Your task to perform on an android device: see creations saved in the google photos Image 0: 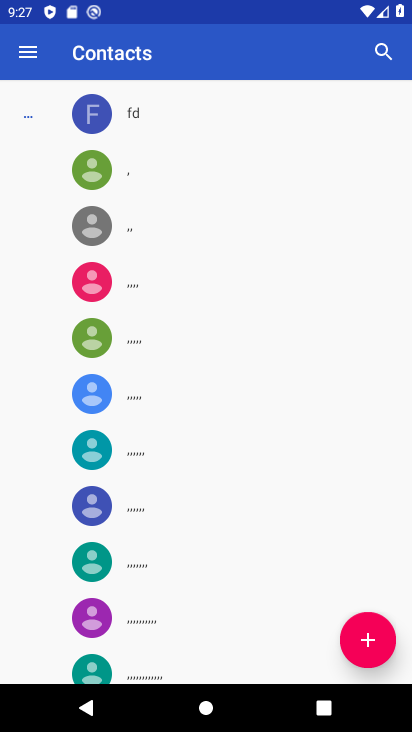
Step 0: press home button
Your task to perform on an android device: see creations saved in the google photos Image 1: 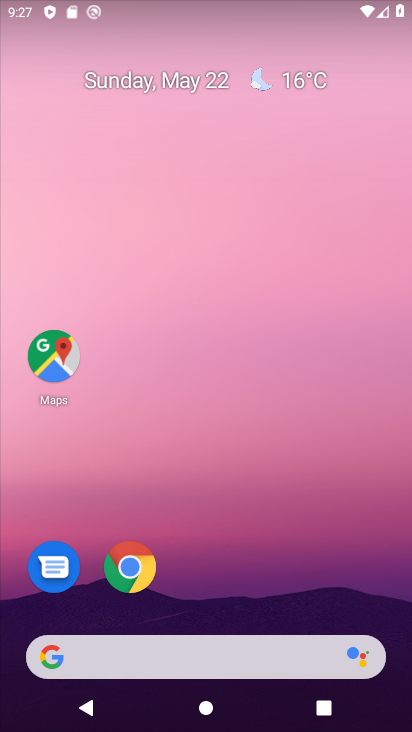
Step 1: drag from (225, 622) to (370, 57)
Your task to perform on an android device: see creations saved in the google photos Image 2: 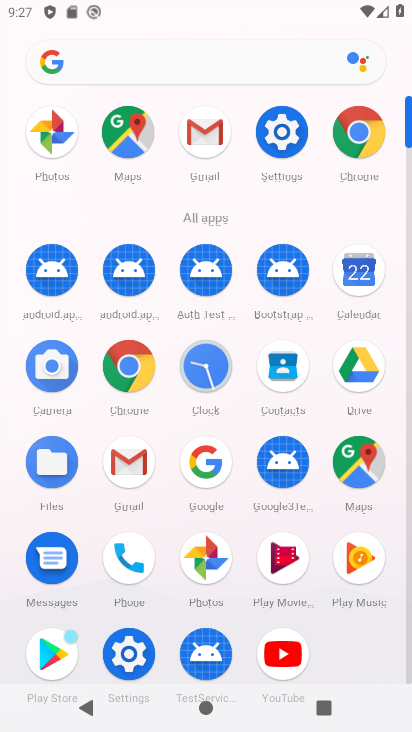
Step 2: click (204, 573)
Your task to perform on an android device: see creations saved in the google photos Image 3: 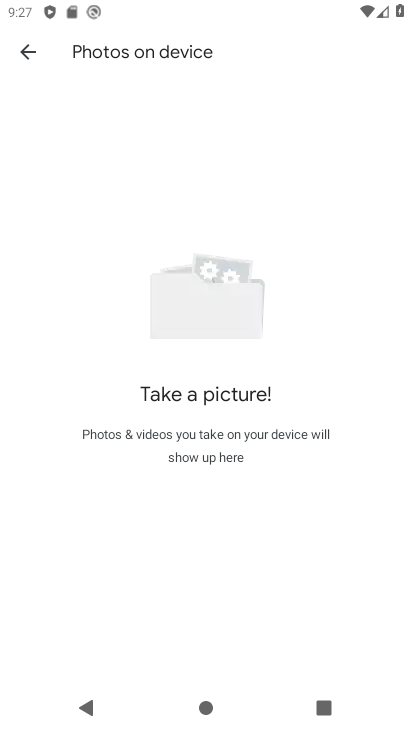
Step 3: click (31, 39)
Your task to perform on an android device: see creations saved in the google photos Image 4: 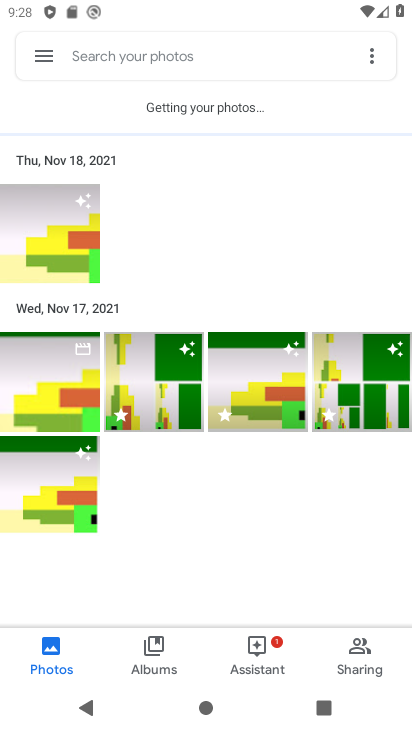
Step 4: click (227, 73)
Your task to perform on an android device: see creations saved in the google photos Image 5: 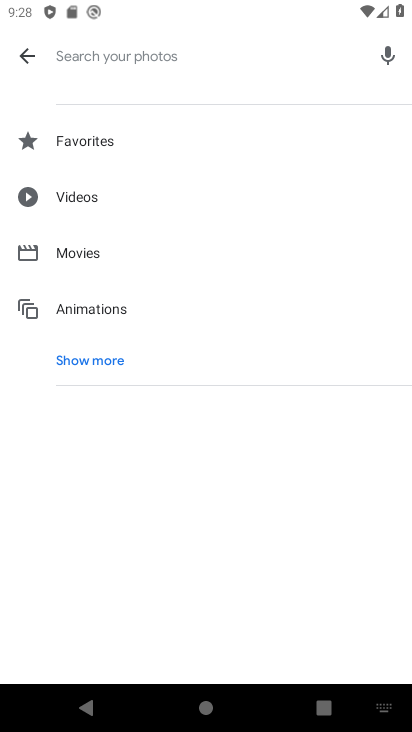
Step 5: click (84, 352)
Your task to perform on an android device: see creations saved in the google photos Image 6: 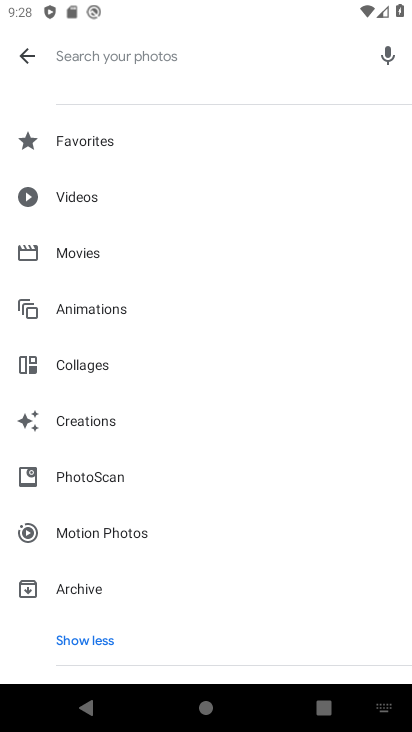
Step 6: click (61, 432)
Your task to perform on an android device: see creations saved in the google photos Image 7: 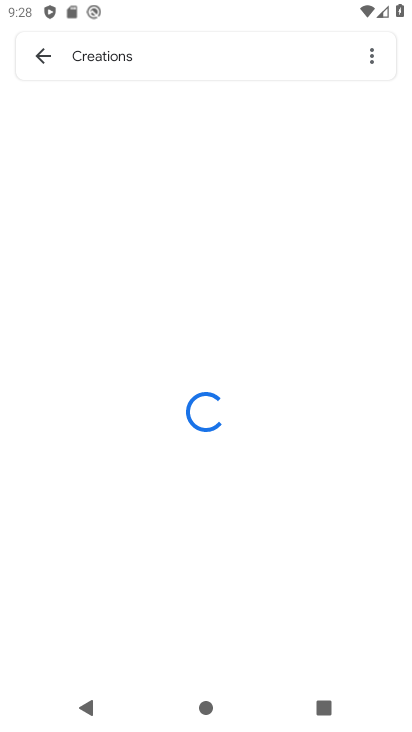
Step 7: task complete